Your task to perform on an android device: toggle show notifications on the lock screen Image 0: 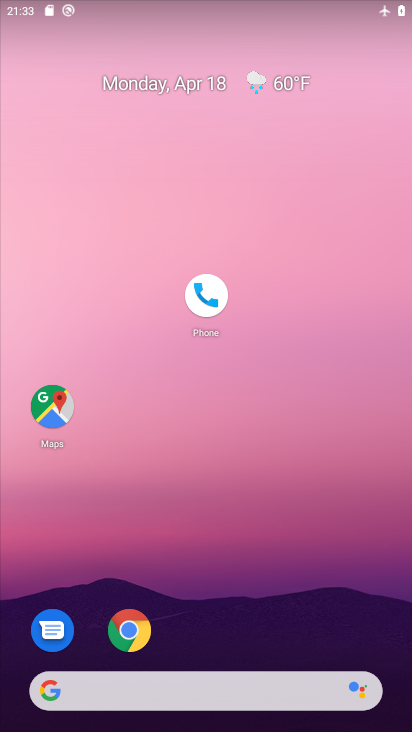
Step 0: drag from (305, 583) to (283, 227)
Your task to perform on an android device: toggle show notifications on the lock screen Image 1: 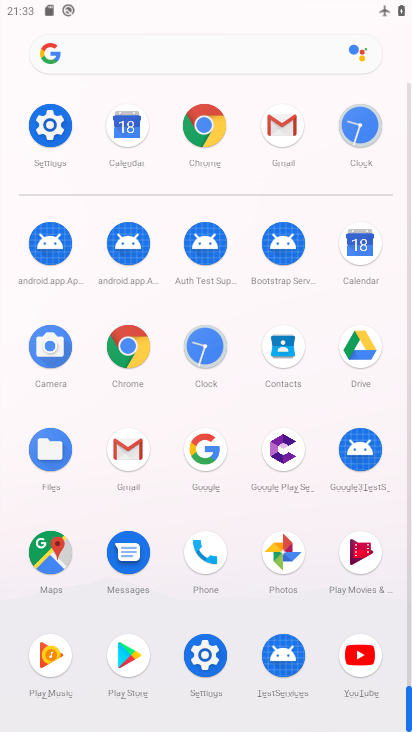
Step 1: click (38, 126)
Your task to perform on an android device: toggle show notifications on the lock screen Image 2: 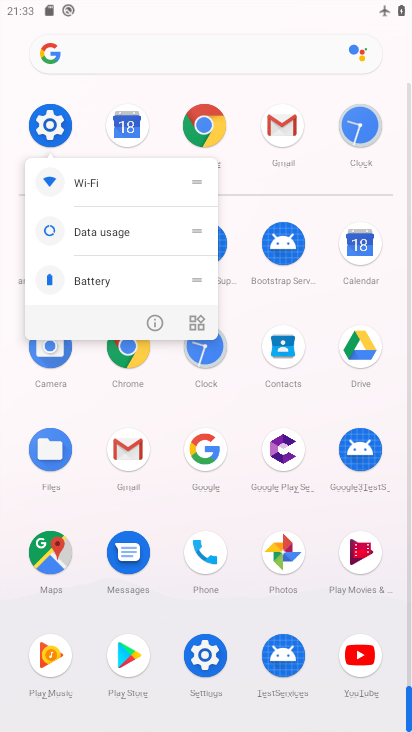
Step 2: click (39, 128)
Your task to perform on an android device: toggle show notifications on the lock screen Image 3: 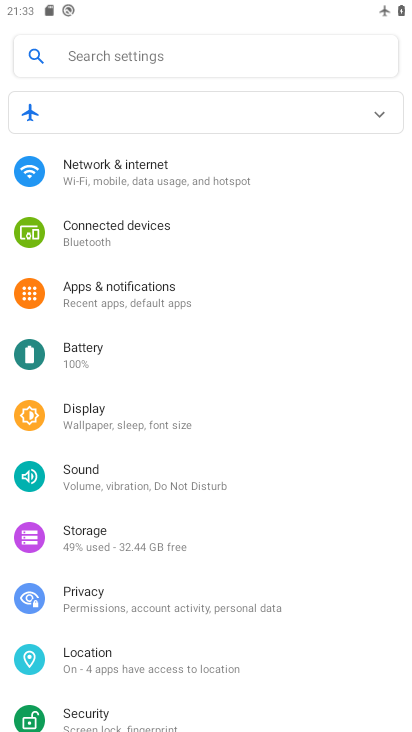
Step 3: click (159, 297)
Your task to perform on an android device: toggle show notifications on the lock screen Image 4: 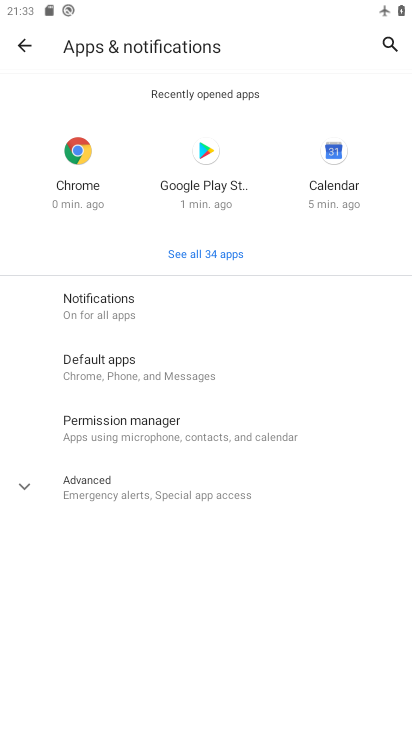
Step 4: click (145, 295)
Your task to perform on an android device: toggle show notifications on the lock screen Image 5: 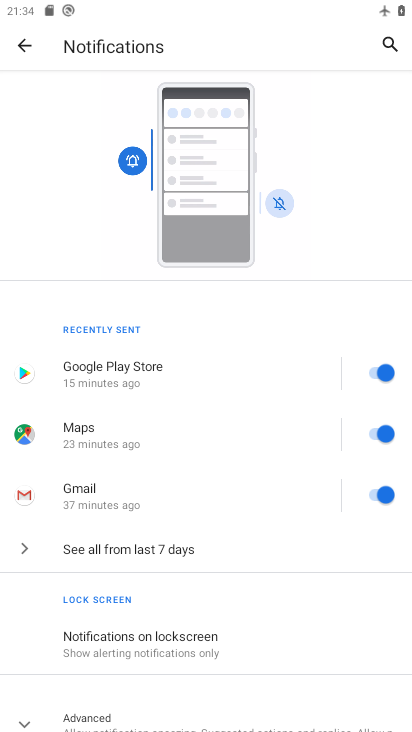
Step 5: drag from (248, 556) to (216, 203)
Your task to perform on an android device: toggle show notifications on the lock screen Image 6: 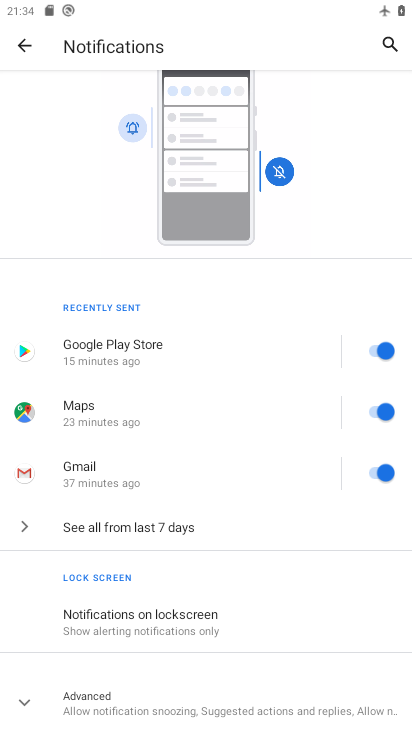
Step 6: drag from (243, 625) to (248, 252)
Your task to perform on an android device: toggle show notifications on the lock screen Image 7: 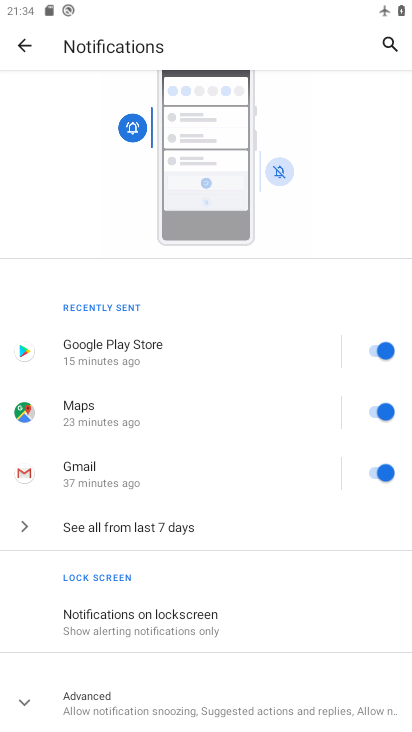
Step 7: click (133, 615)
Your task to perform on an android device: toggle show notifications on the lock screen Image 8: 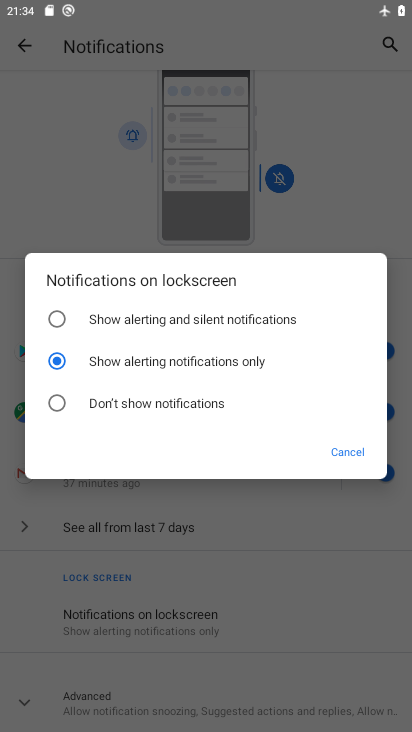
Step 8: click (172, 321)
Your task to perform on an android device: toggle show notifications on the lock screen Image 9: 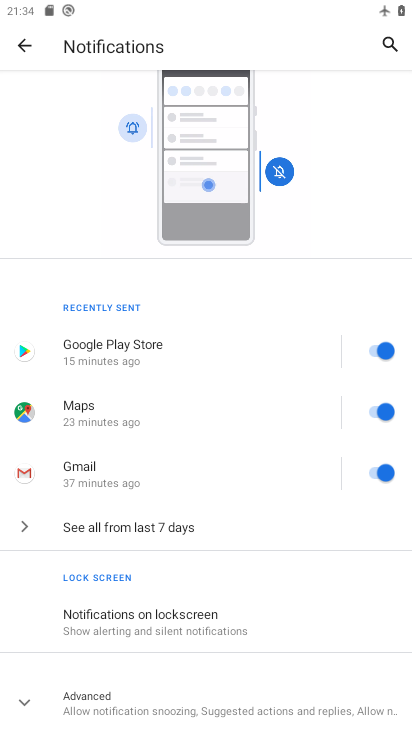
Step 9: task complete